Your task to perform on an android device: toggle wifi Image 0: 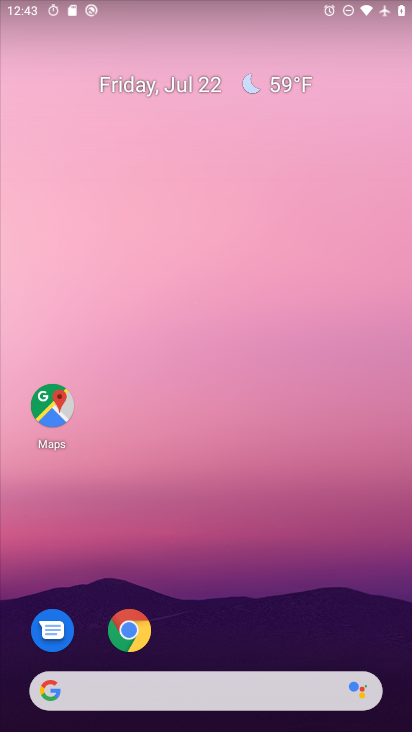
Step 0: drag from (205, 4) to (217, 376)
Your task to perform on an android device: toggle wifi Image 1: 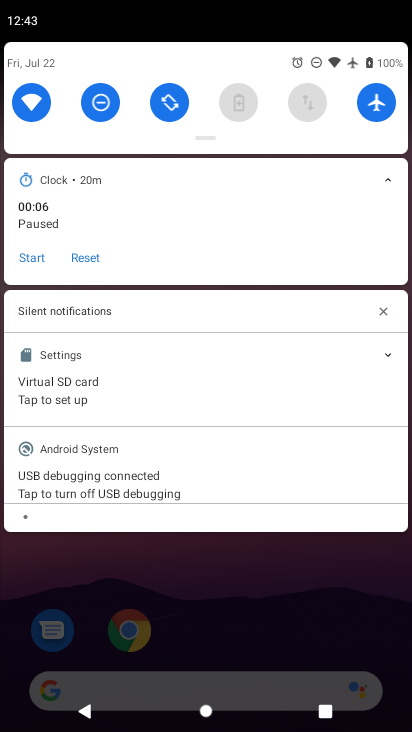
Step 1: click (29, 107)
Your task to perform on an android device: toggle wifi Image 2: 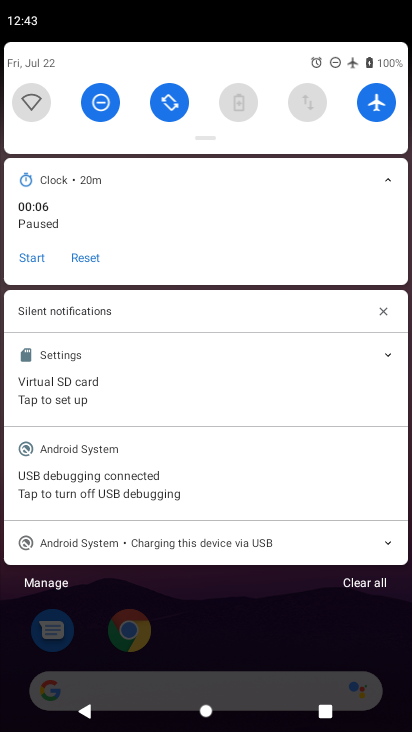
Step 2: task complete